Your task to perform on an android device: Empty the shopping cart on walmart. Add "dell xps" to the cart on walmart, then select checkout. Image 0: 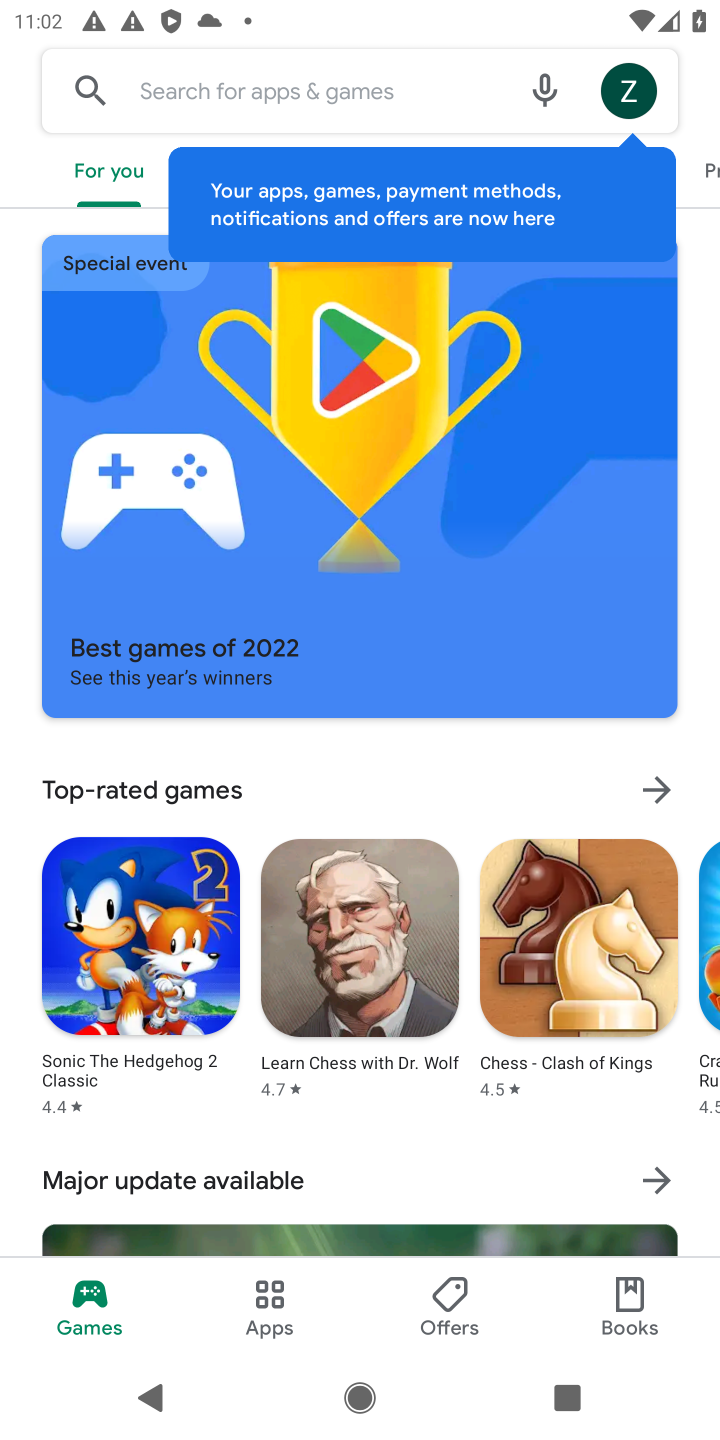
Step 0: press home button
Your task to perform on an android device: Empty the shopping cart on walmart. Add "dell xps" to the cart on walmart, then select checkout. Image 1: 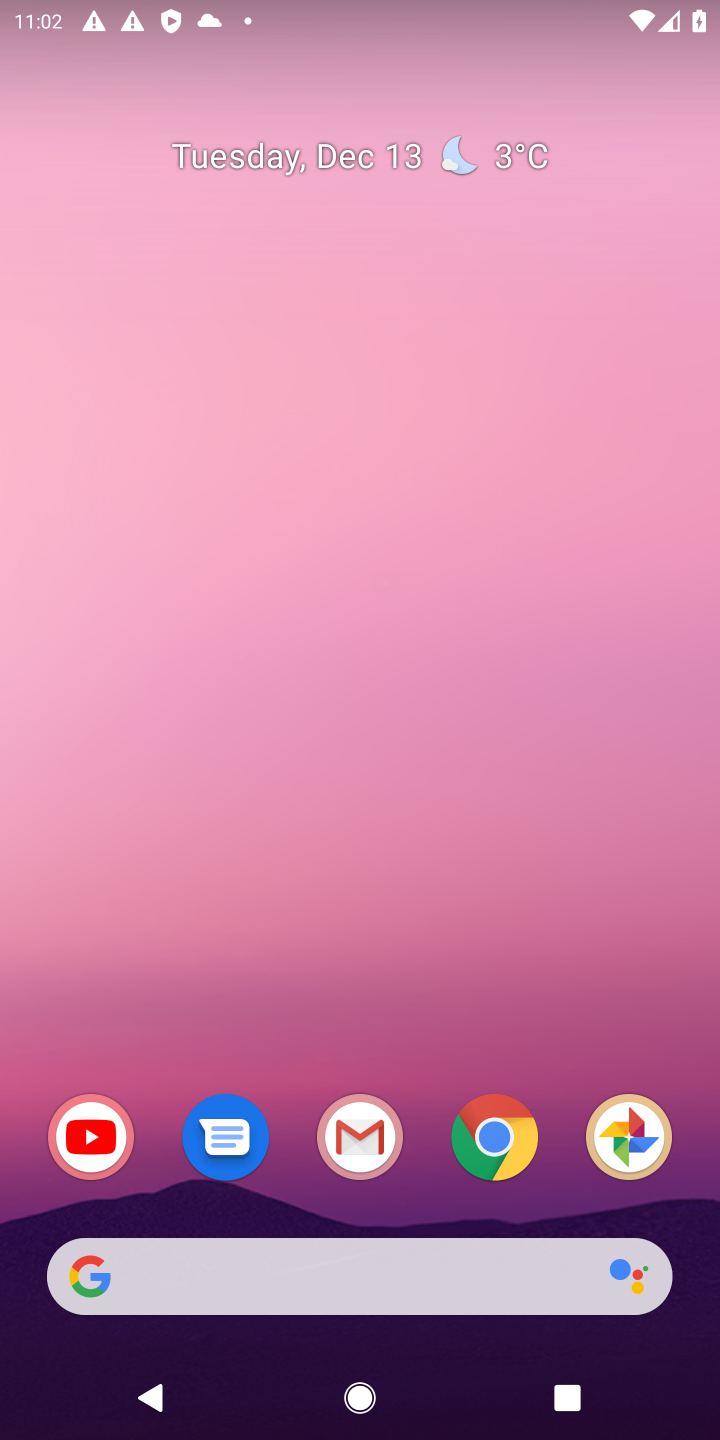
Step 1: click (480, 1124)
Your task to perform on an android device: Empty the shopping cart on walmart. Add "dell xps" to the cart on walmart, then select checkout. Image 2: 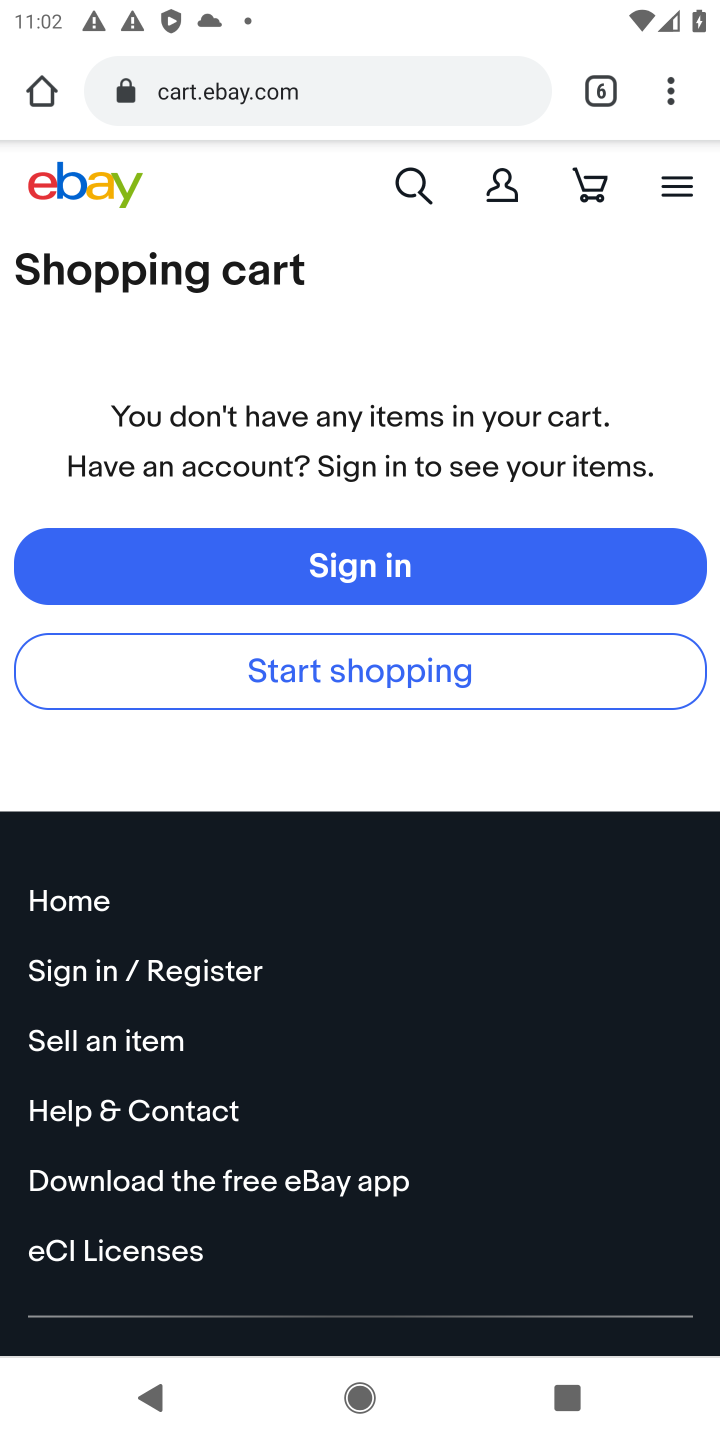
Step 2: click (605, 86)
Your task to perform on an android device: Empty the shopping cart on walmart. Add "dell xps" to the cart on walmart, then select checkout. Image 3: 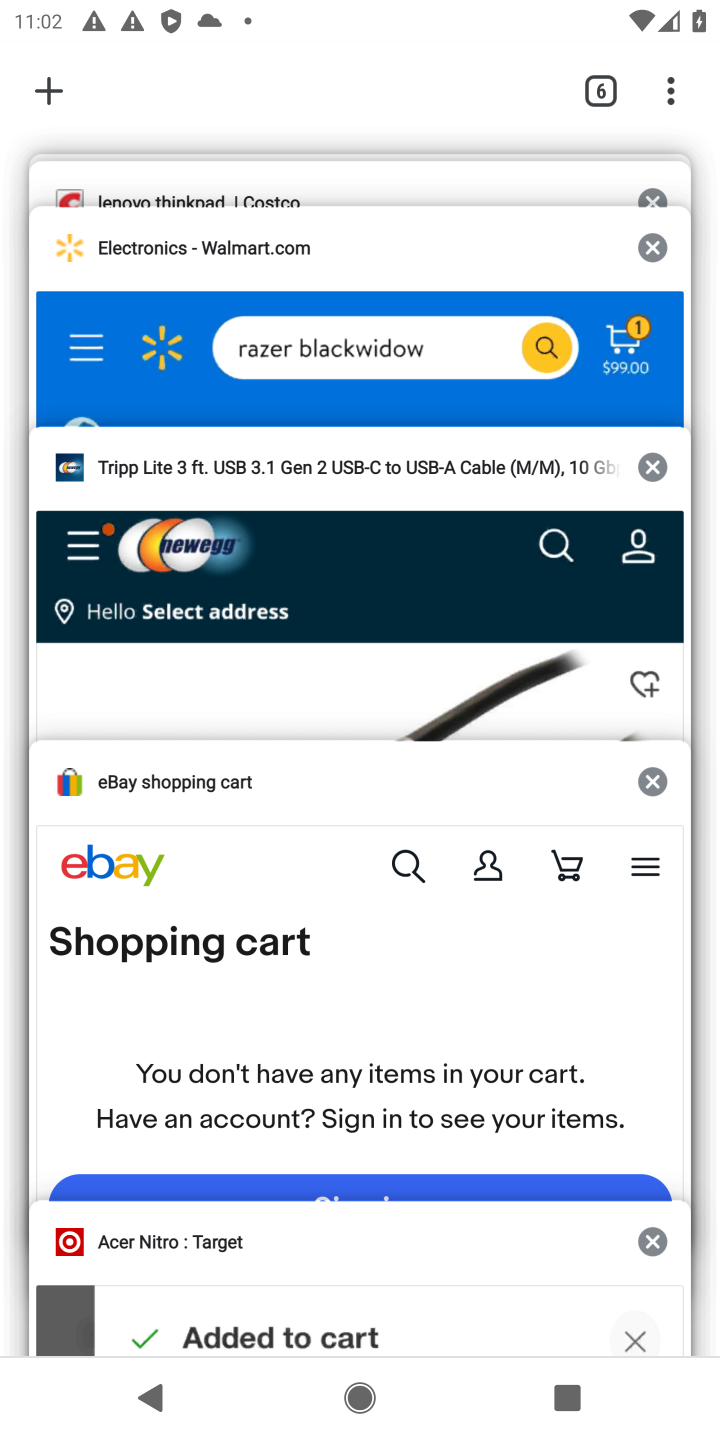
Step 3: click (347, 265)
Your task to perform on an android device: Empty the shopping cart on walmart. Add "dell xps" to the cart on walmart, then select checkout. Image 4: 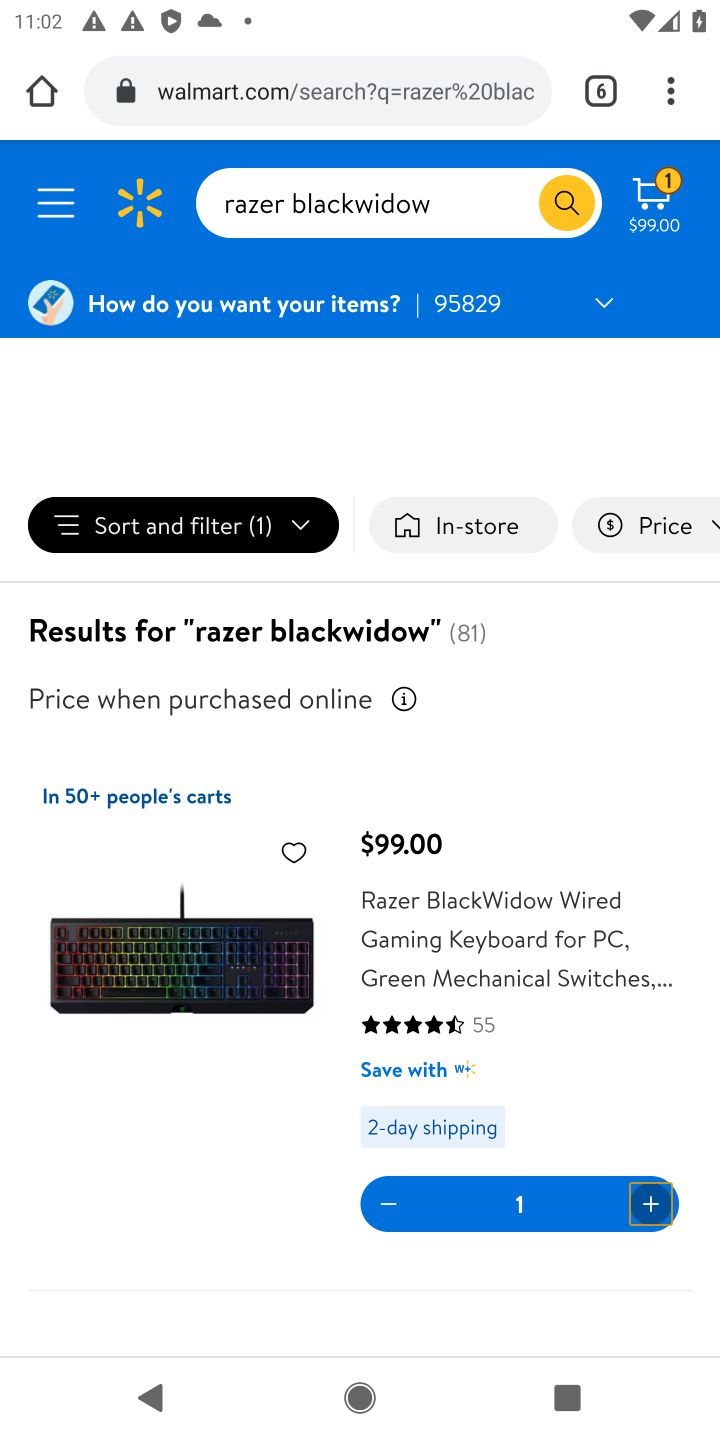
Step 4: click (330, 200)
Your task to perform on an android device: Empty the shopping cart on walmart. Add "dell xps" to the cart on walmart, then select checkout. Image 5: 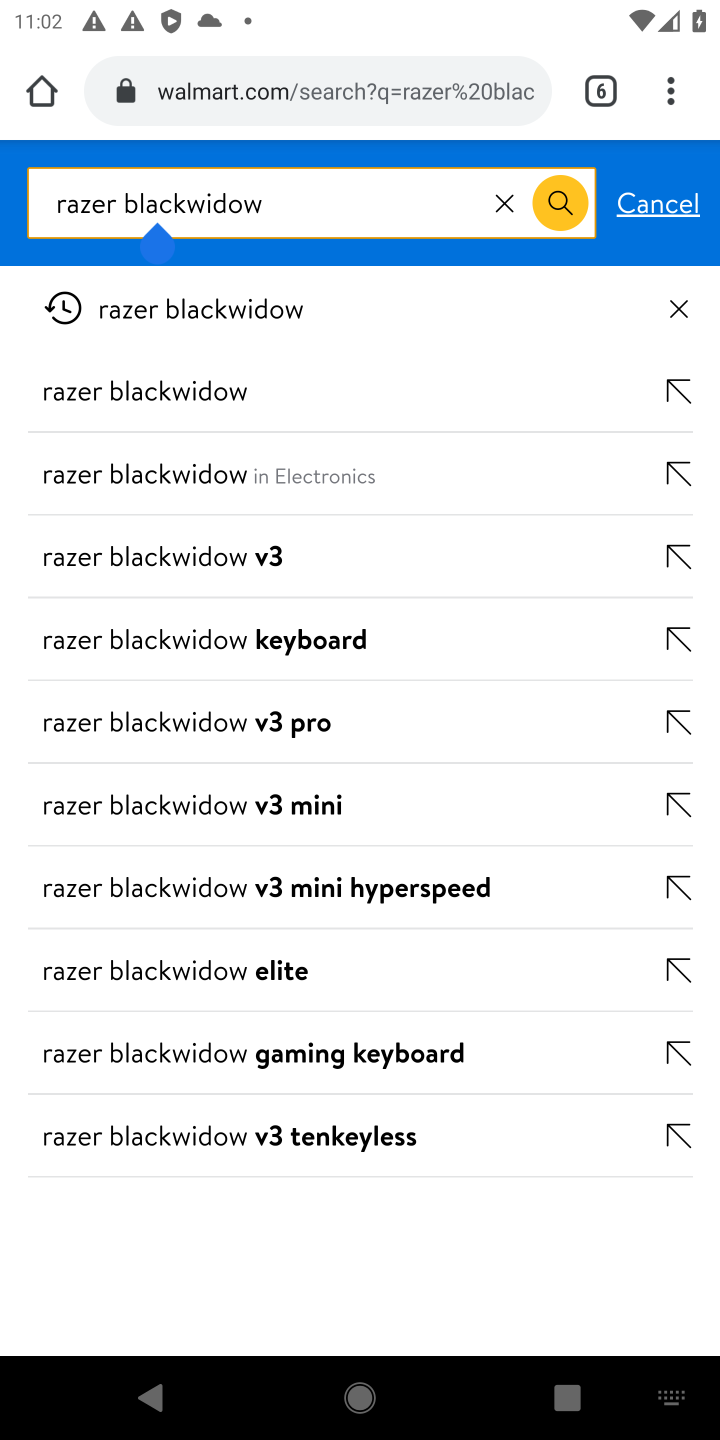
Step 5: click (506, 205)
Your task to perform on an android device: Empty the shopping cart on walmart. Add "dell xps" to the cart on walmart, then select checkout. Image 6: 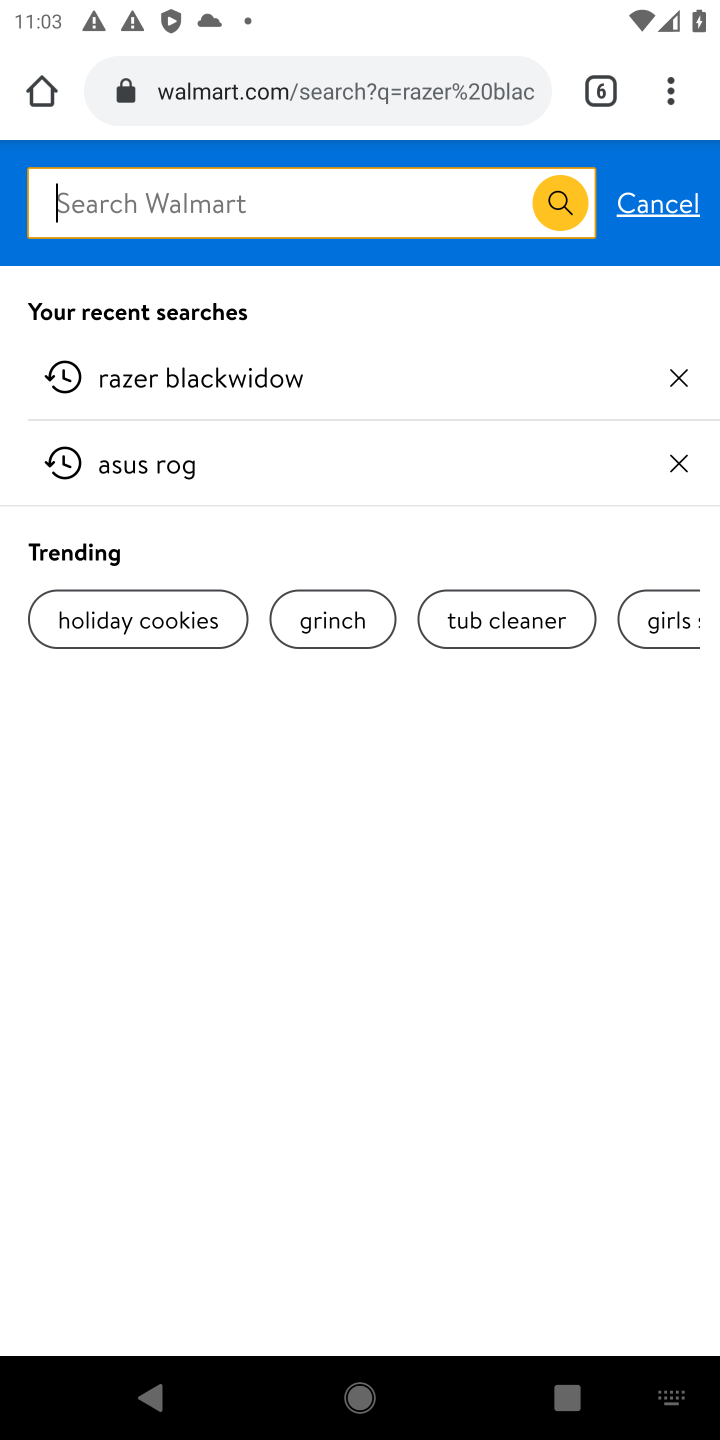
Step 6: type "dell xps"
Your task to perform on an android device: Empty the shopping cart on walmart. Add "dell xps" to the cart on walmart, then select checkout. Image 7: 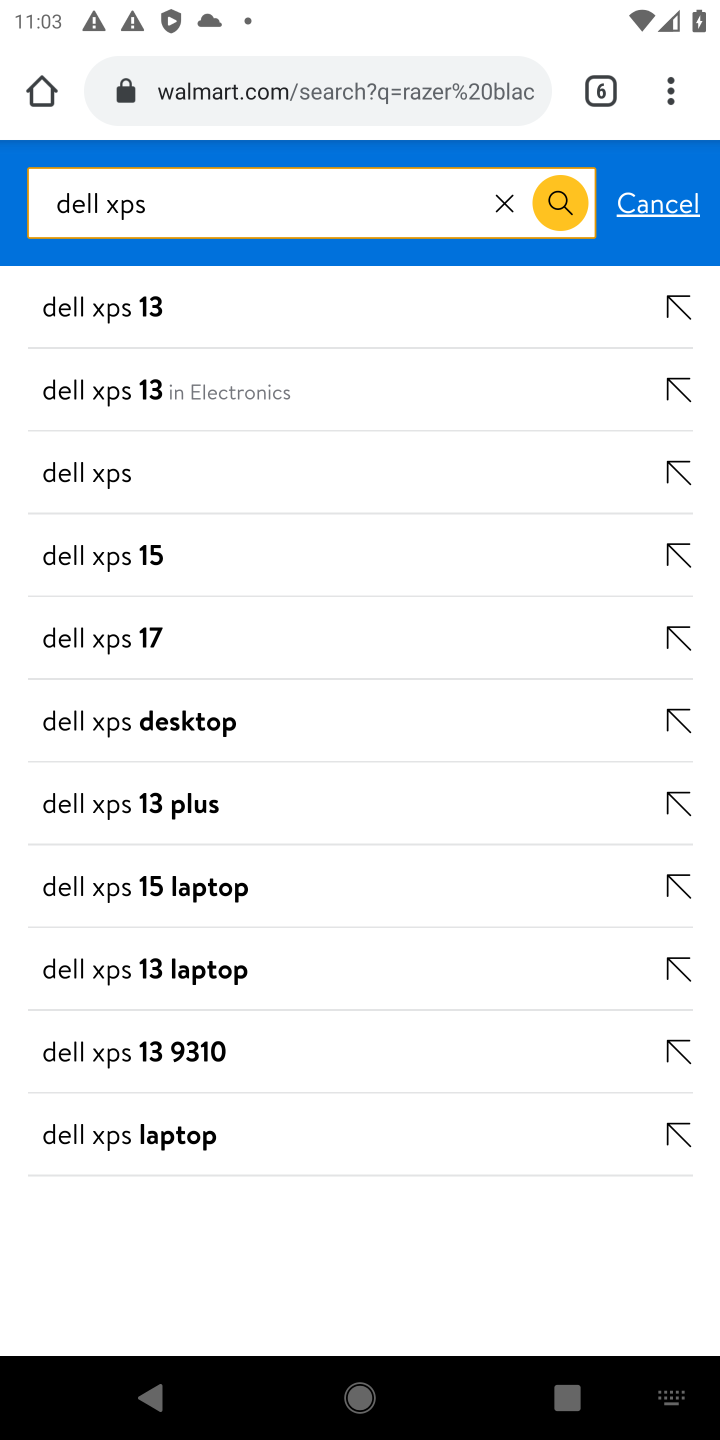
Step 7: click (101, 381)
Your task to perform on an android device: Empty the shopping cart on walmart. Add "dell xps" to the cart on walmart, then select checkout. Image 8: 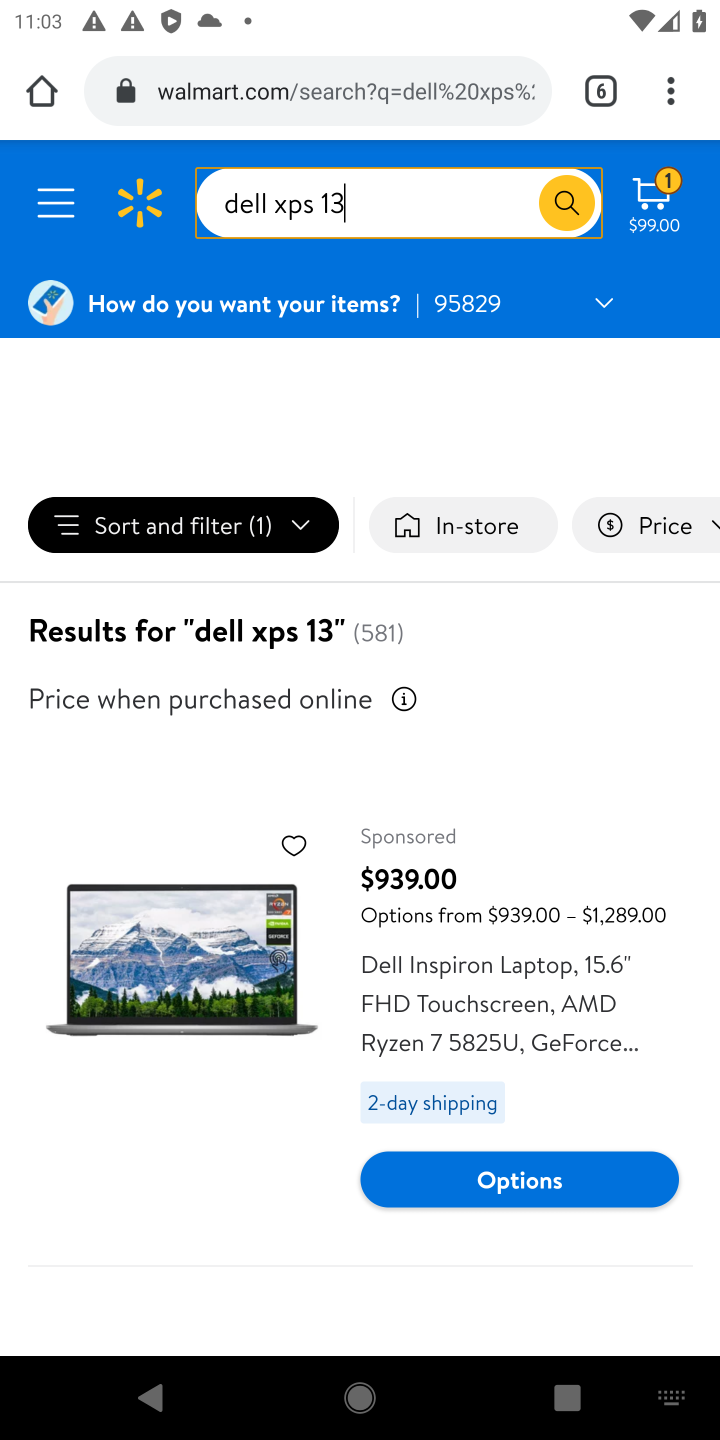
Step 8: click (503, 1003)
Your task to perform on an android device: Empty the shopping cart on walmart. Add "dell xps" to the cart on walmart, then select checkout. Image 9: 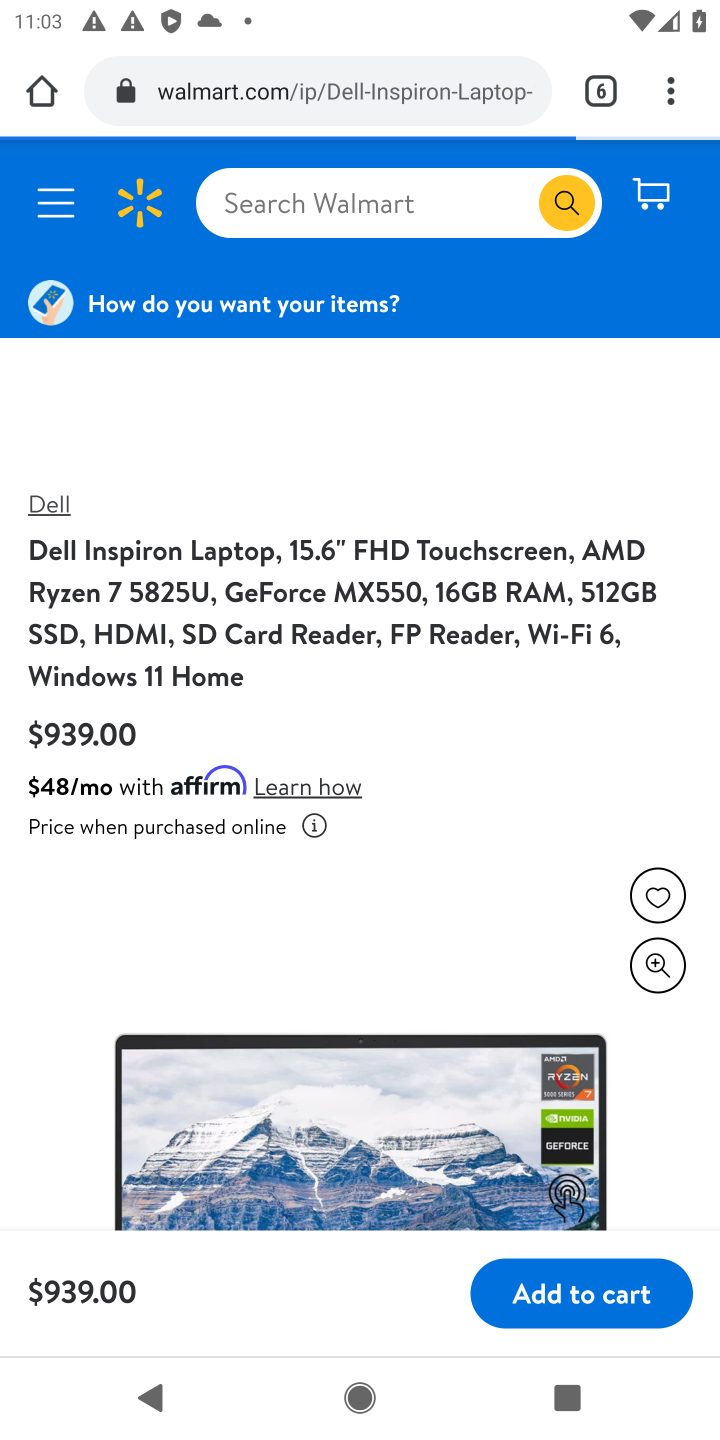
Step 9: click (573, 1285)
Your task to perform on an android device: Empty the shopping cart on walmart. Add "dell xps" to the cart on walmart, then select checkout. Image 10: 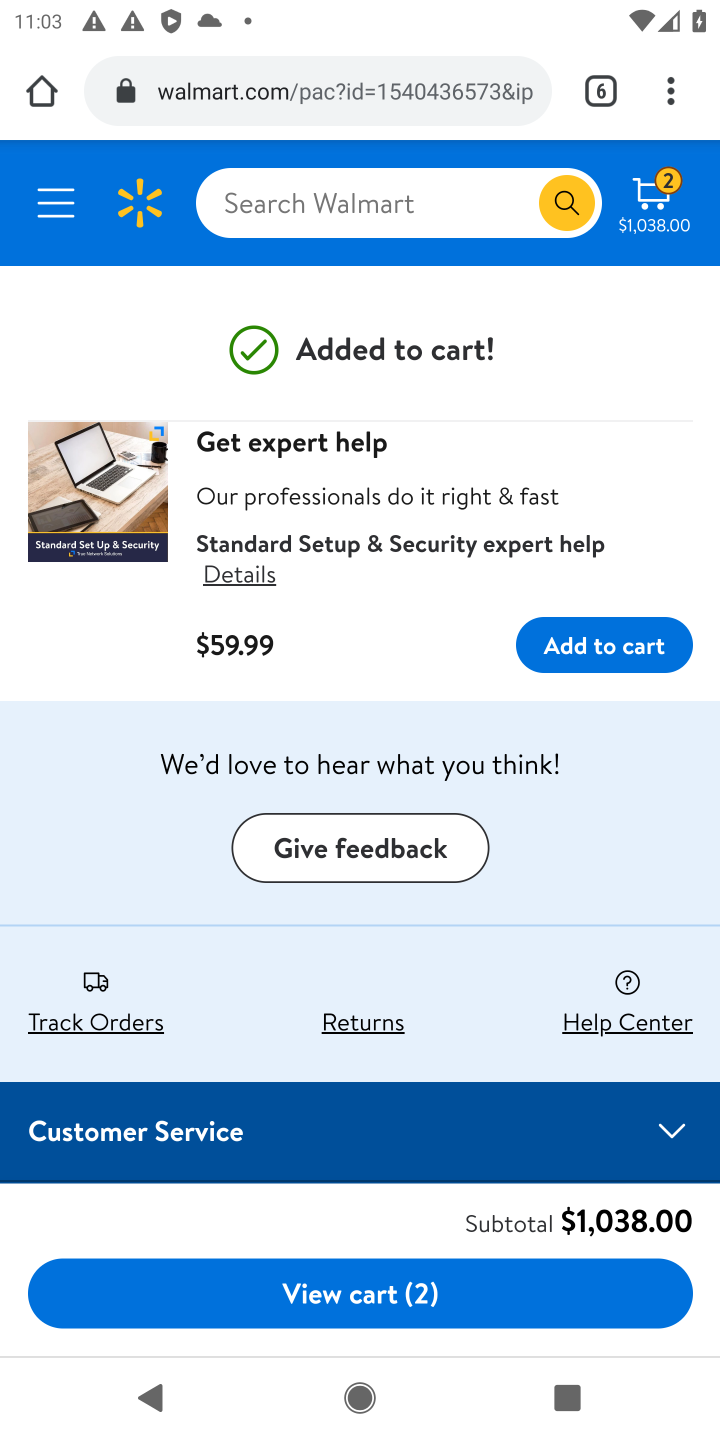
Step 10: task complete